Your task to perform on an android device: Open battery settings Image 0: 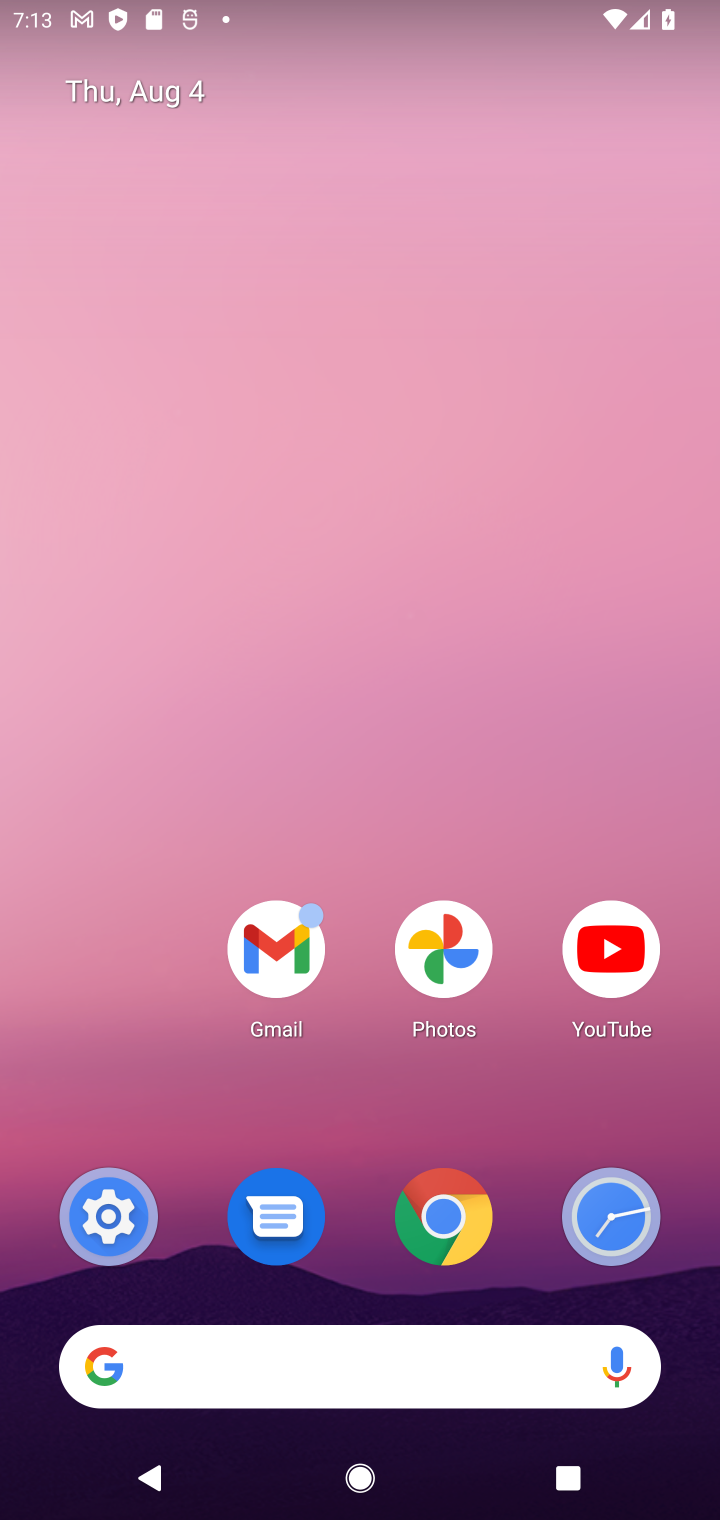
Step 0: drag from (371, 1283) to (342, 252)
Your task to perform on an android device: Open battery settings Image 1: 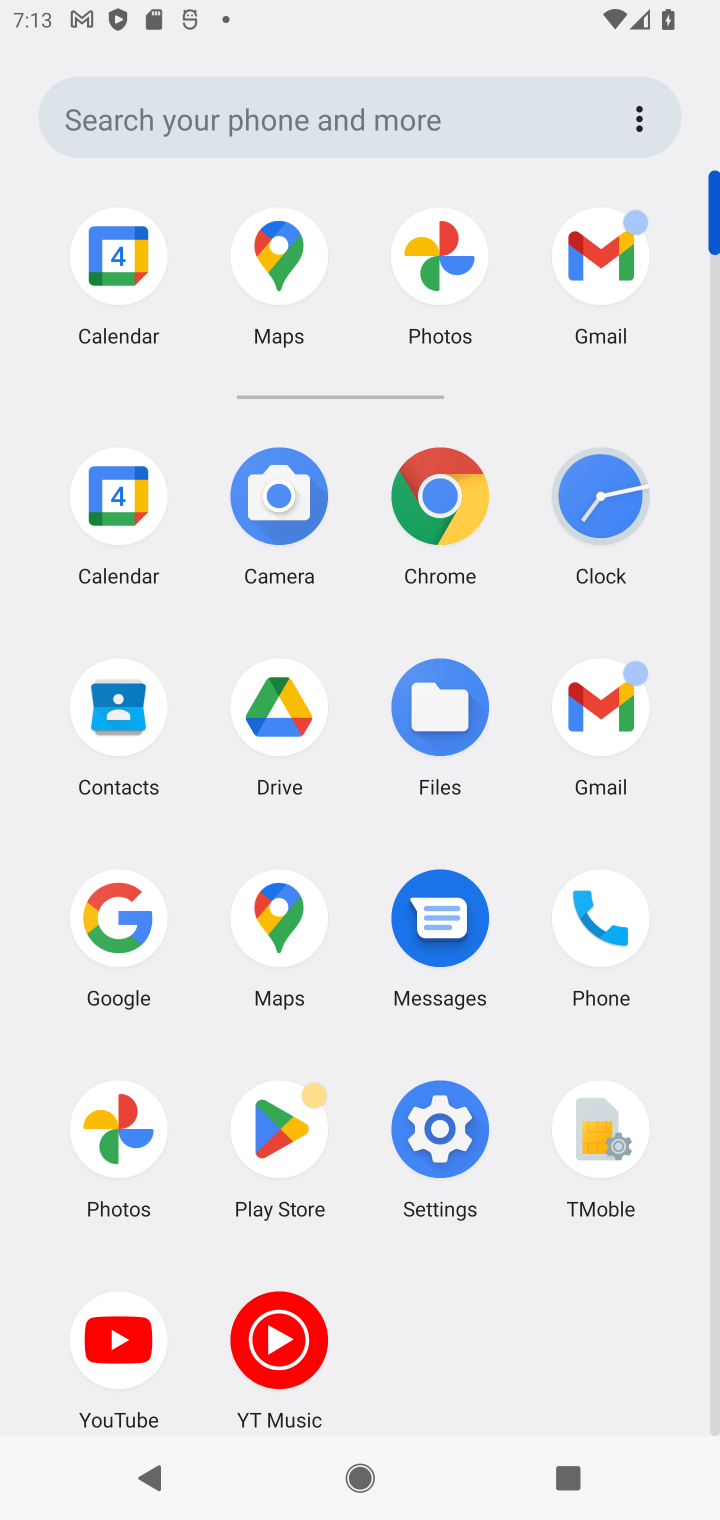
Step 1: click (445, 1113)
Your task to perform on an android device: Open battery settings Image 2: 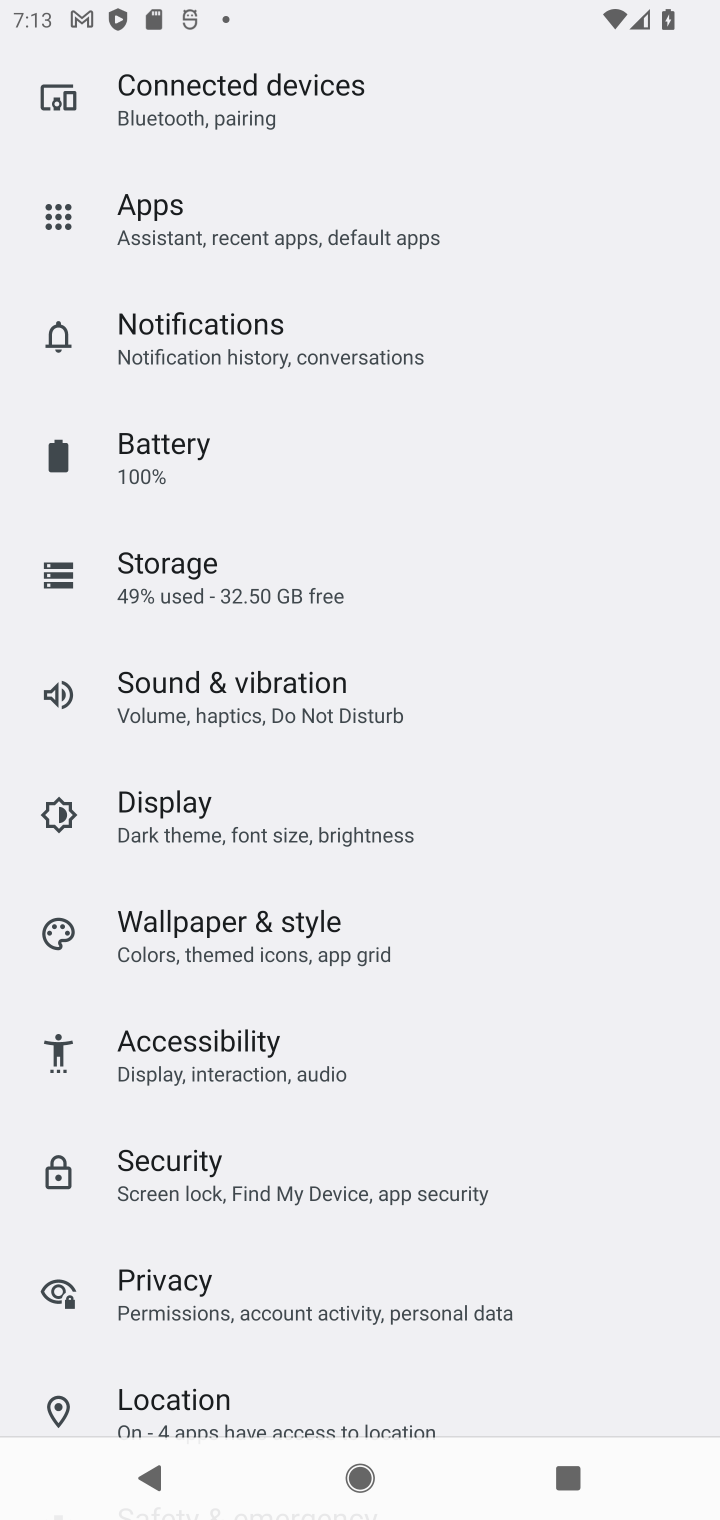
Step 2: click (142, 428)
Your task to perform on an android device: Open battery settings Image 3: 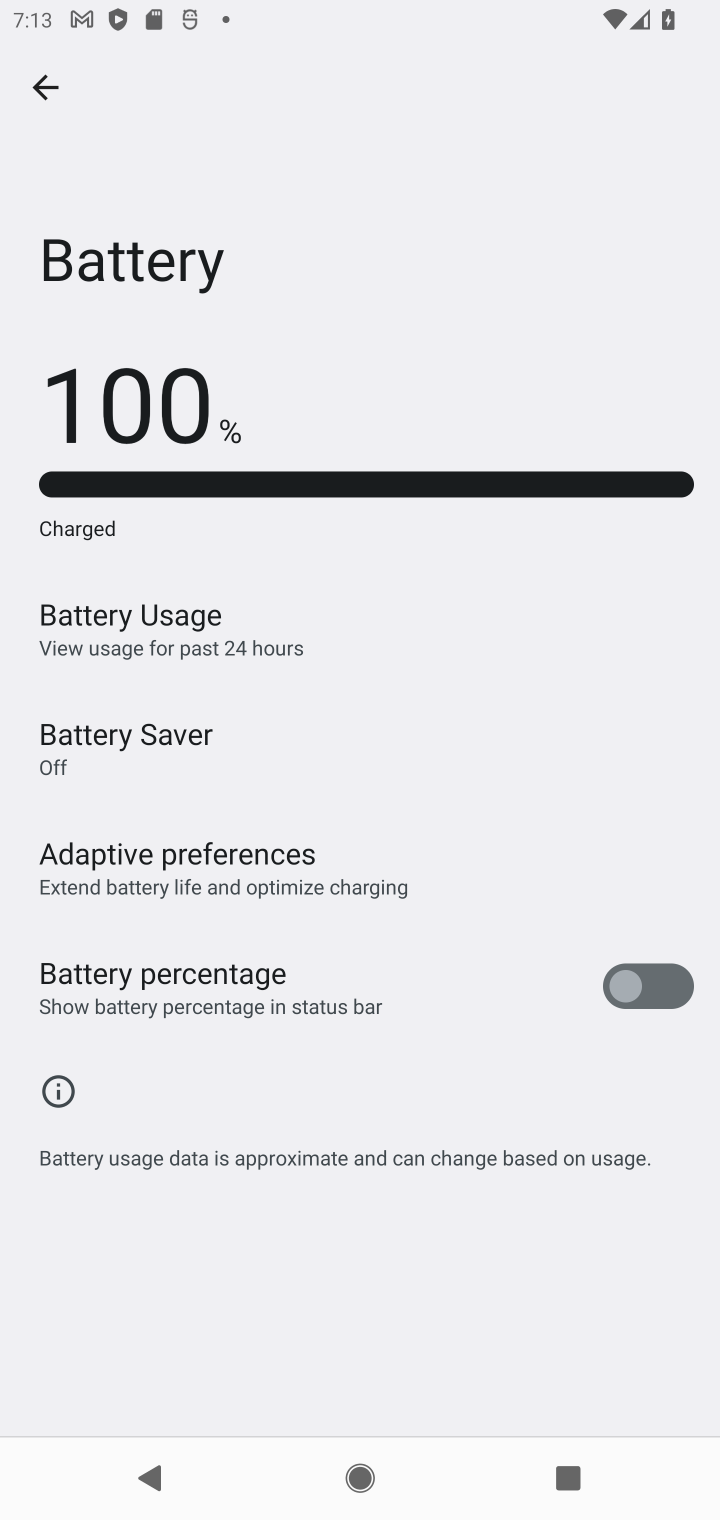
Step 3: task complete